Your task to perform on an android device: Go to Yahoo.com Image 0: 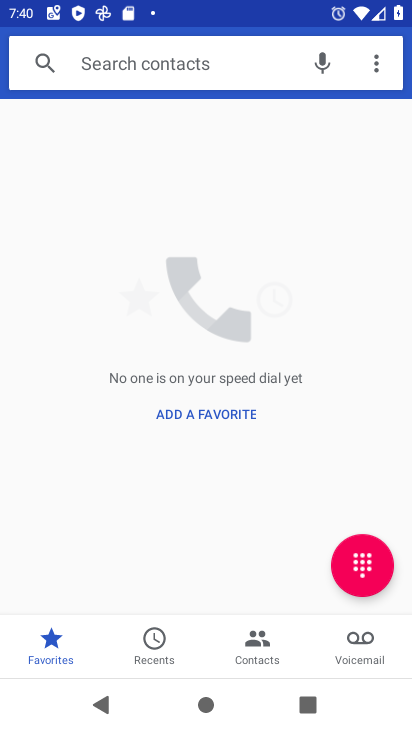
Step 0: press home button
Your task to perform on an android device: Go to Yahoo.com Image 1: 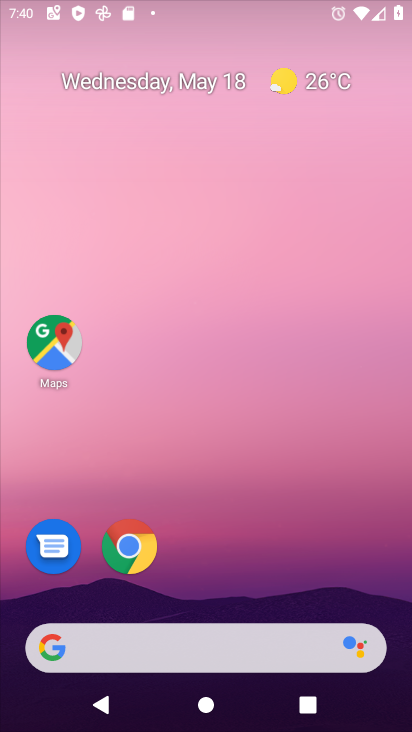
Step 1: drag from (387, 628) to (243, 81)
Your task to perform on an android device: Go to Yahoo.com Image 2: 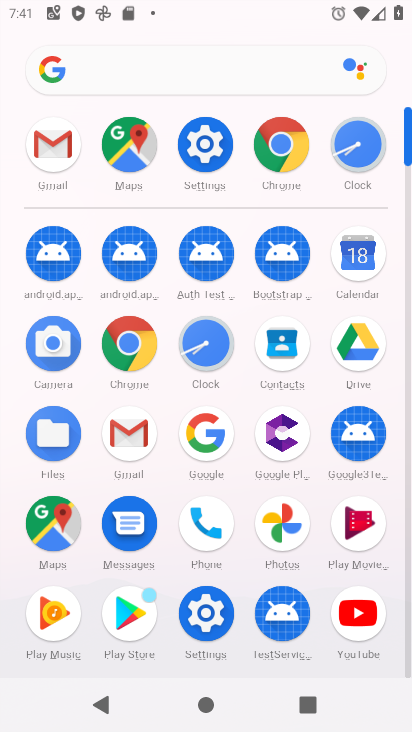
Step 2: click (119, 353)
Your task to perform on an android device: Go to Yahoo.com Image 3: 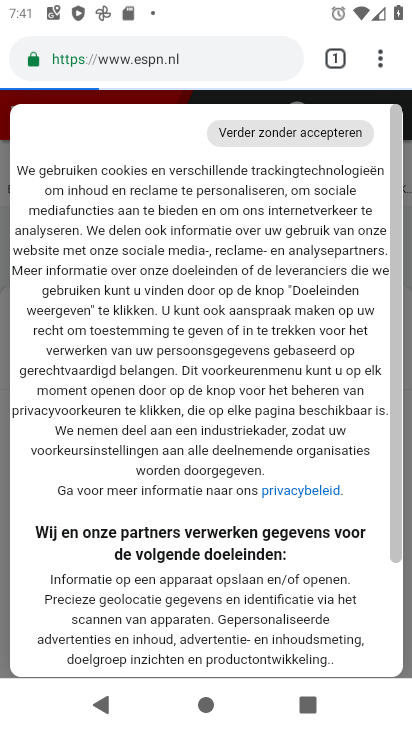
Step 3: press back button
Your task to perform on an android device: Go to Yahoo.com Image 4: 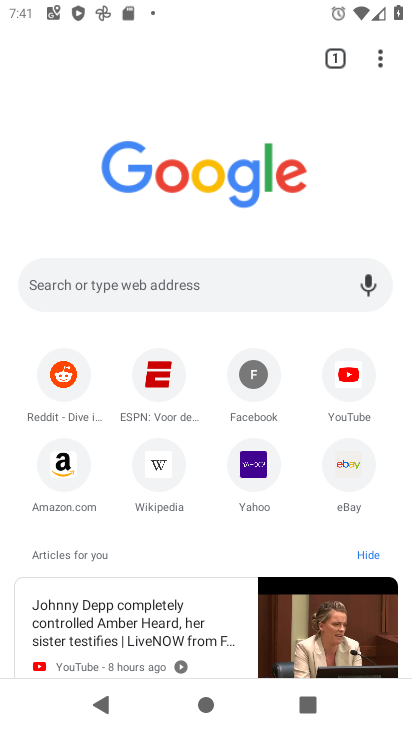
Step 4: click (268, 470)
Your task to perform on an android device: Go to Yahoo.com Image 5: 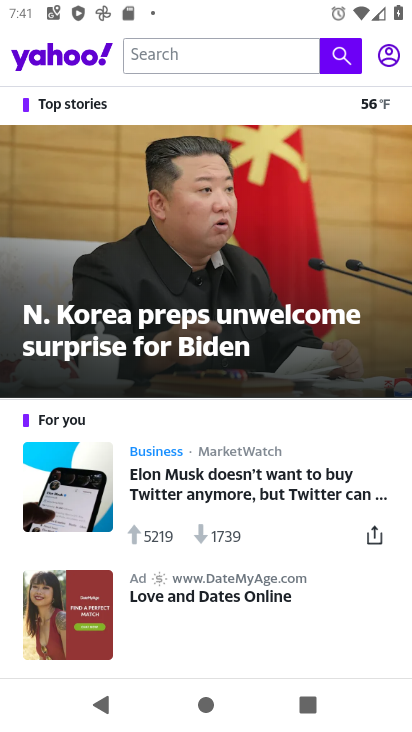
Step 5: task complete